Your task to perform on an android device: Go to Amazon Image 0: 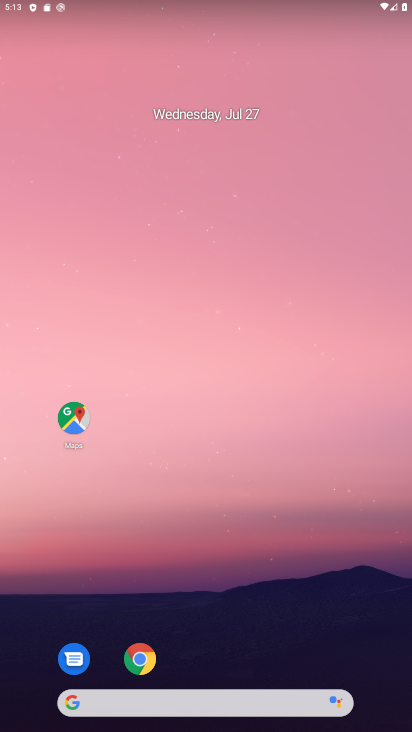
Step 0: click (145, 653)
Your task to perform on an android device: Go to Amazon Image 1: 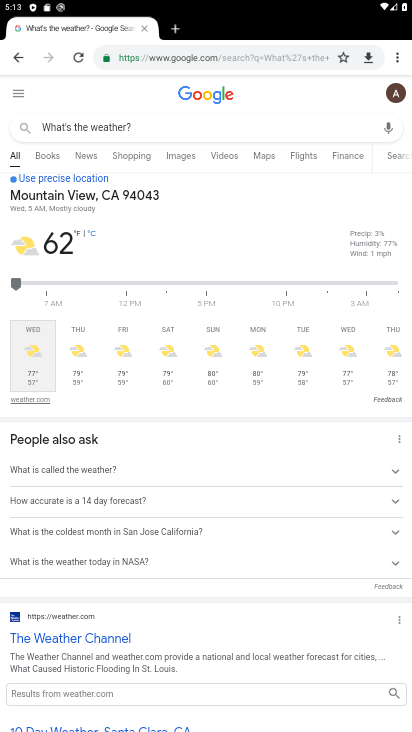
Step 1: click (202, 53)
Your task to perform on an android device: Go to Amazon Image 2: 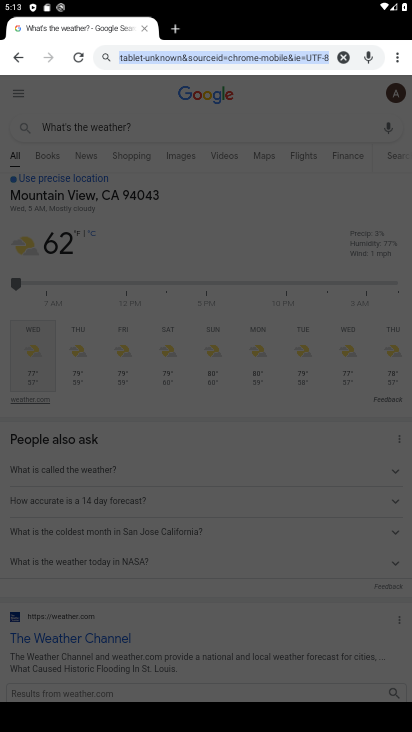
Step 2: type " Amazon"
Your task to perform on an android device: Go to Amazon Image 3: 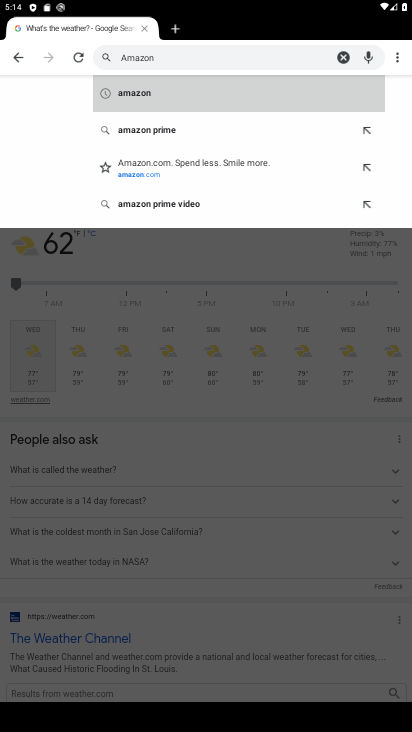
Step 3: click (130, 176)
Your task to perform on an android device: Go to Amazon Image 4: 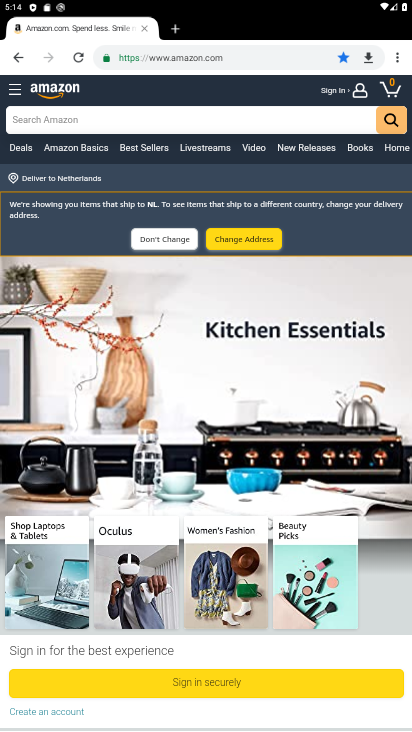
Step 4: task complete